Your task to perform on an android device: snooze an email in the gmail app Image 0: 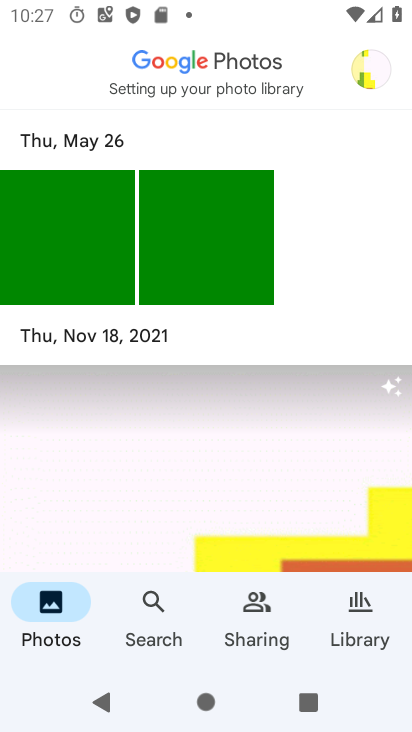
Step 0: press home button
Your task to perform on an android device: snooze an email in the gmail app Image 1: 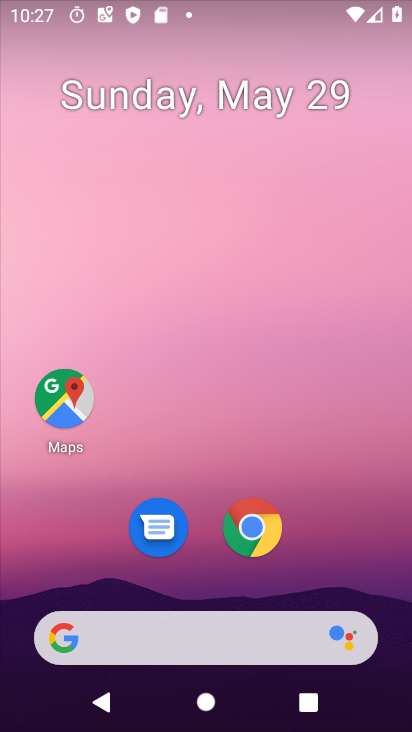
Step 1: drag from (329, 539) to (319, 145)
Your task to perform on an android device: snooze an email in the gmail app Image 2: 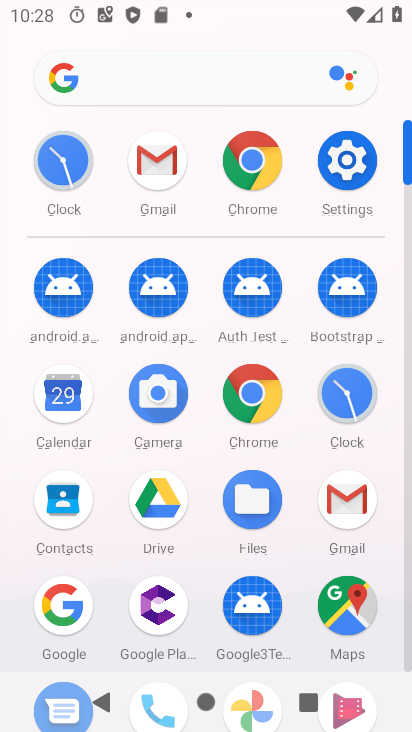
Step 2: click (176, 154)
Your task to perform on an android device: snooze an email in the gmail app Image 3: 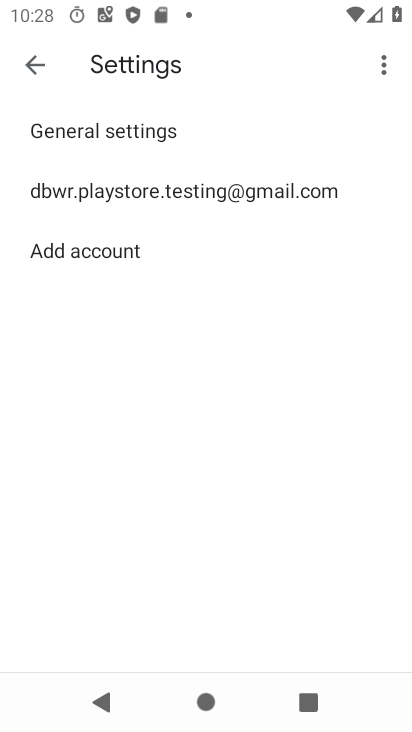
Step 3: click (33, 76)
Your task to perform on an android device: snooze an email in the gmail app Image 4: 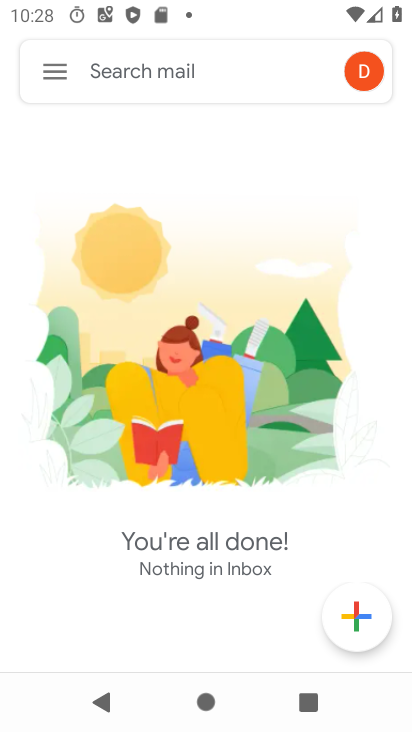
Step 4: click (47, 71)
Your task to perform on an android device: snooze an email in the gmail app Image 5: 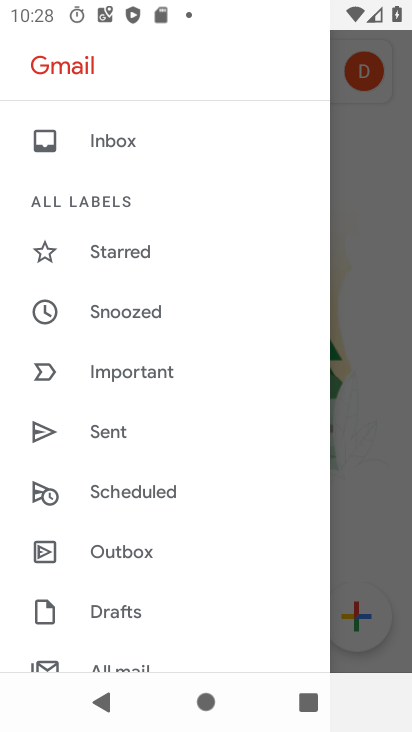
Step 5: click (142, 313)
Your task to perform on an android device: snooze an email in the gmail app Image 6: 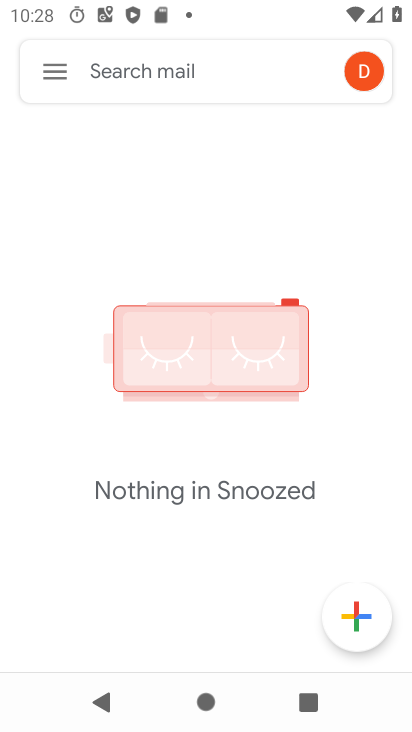
Step 6: click (54, 59)
Your task to perform on an android device: snooze an email in the gmail app Image 7: 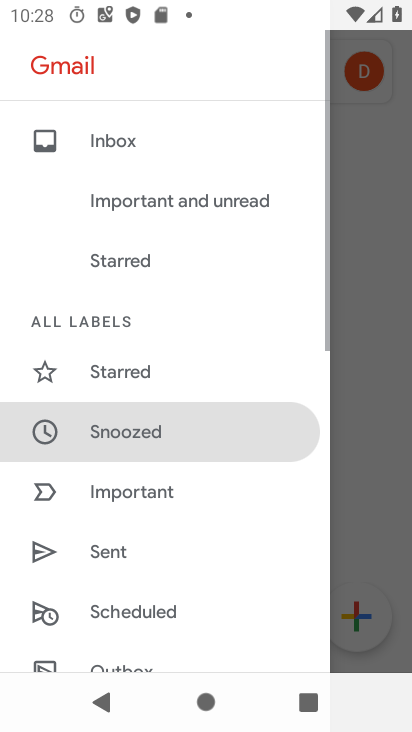
Step 7: drag from (153, 554) to (210, 152)
Your task to perform on an android device: snooze an email in the gmail app Image 8: 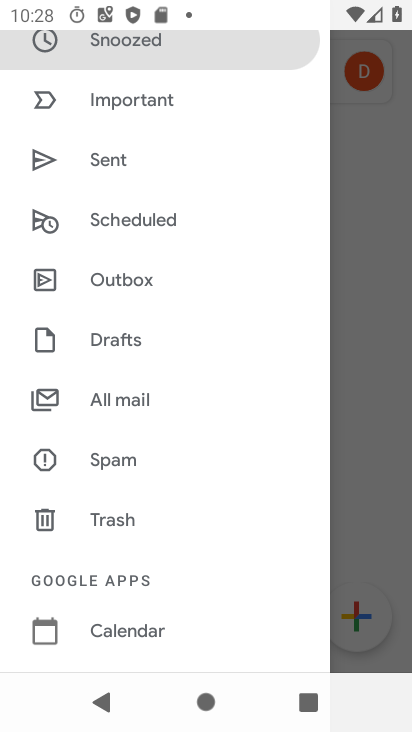
Step 8: click (125, 412)
Your task to perform on an android device: snooze an email in the gmail app Image 9: 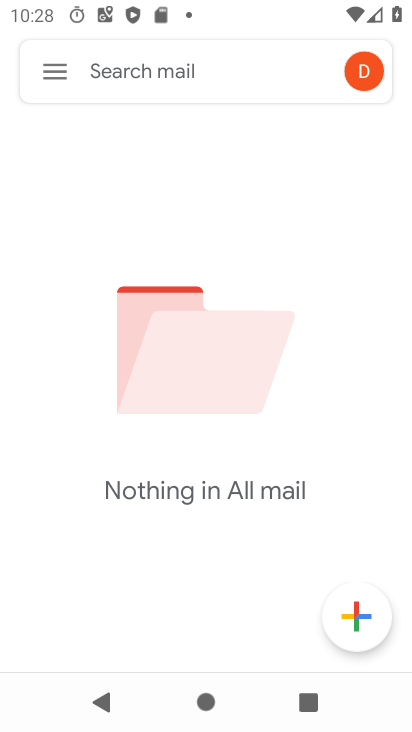
Step 9: task complete